Your task to perform on an android device: see sites visited before in the chrome app Image 0: 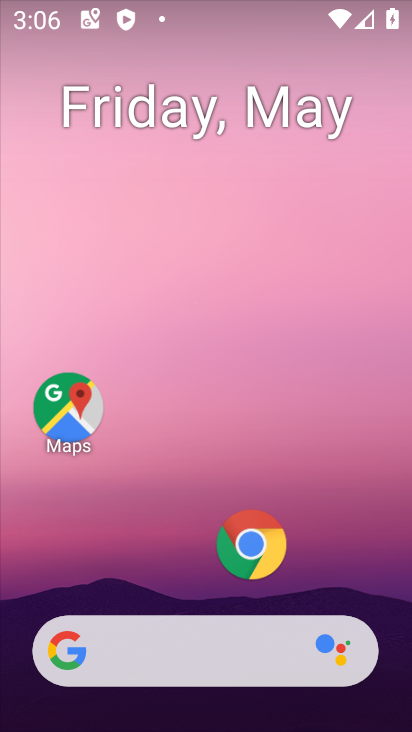
Step 0: click (252, 553)
Your task to perform on an android device: see sites visited before in the chrome app Image 1: 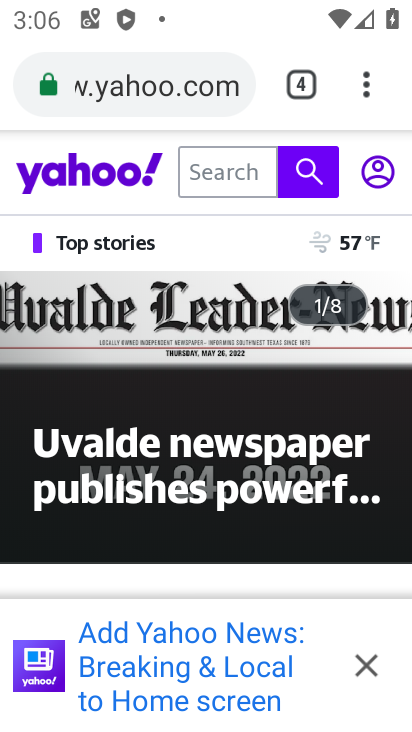
Step 1: click (366, 89)
Your task to perform on an android device: see sites visited before in the chrome app Image 2: 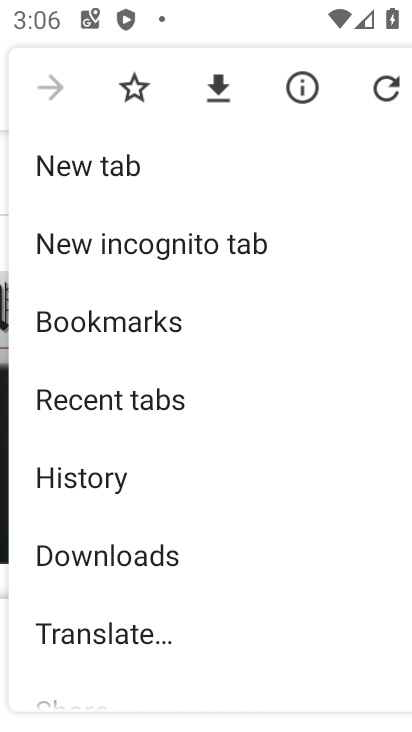
Step 2: click (194, 399)
Your task to perform on an android device: see sites visited before in the chrome app Image 3: 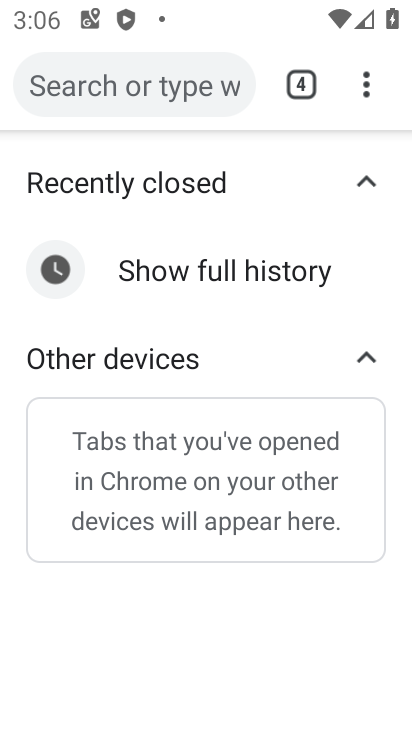
Step 3: task complete